Your task to perform on an android device: Go to privacy settings Image 0: 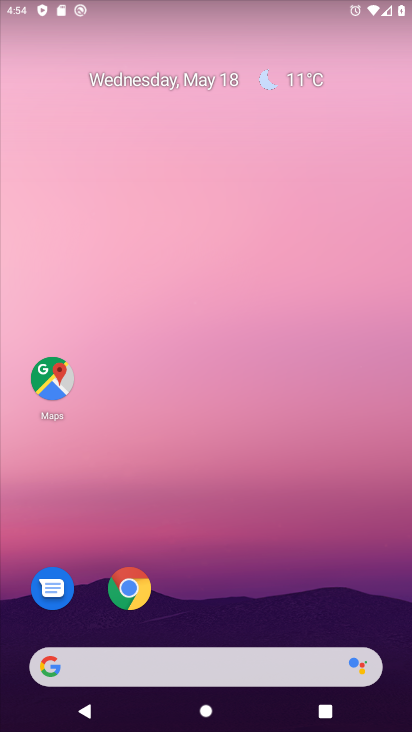
Step 0: drag from (266, 597) to (214, 114)
Your task to perform on an android device: Go to privacy settings Image 1: 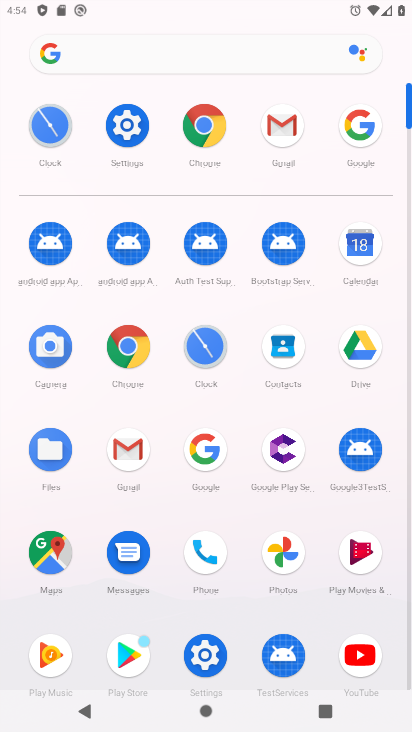
Step 1: click (139, 121)
Your task to perform on an android device: Go to privacy settings Image 2: 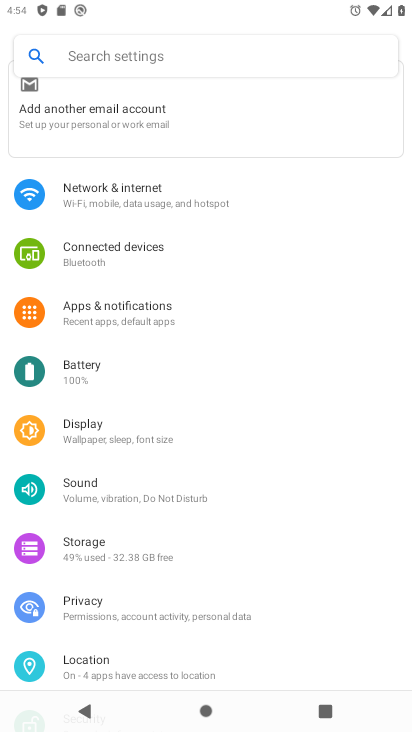
Step 2: click (132, 603)
Your task to perform on an android device: Go to privacy settings Image 3: 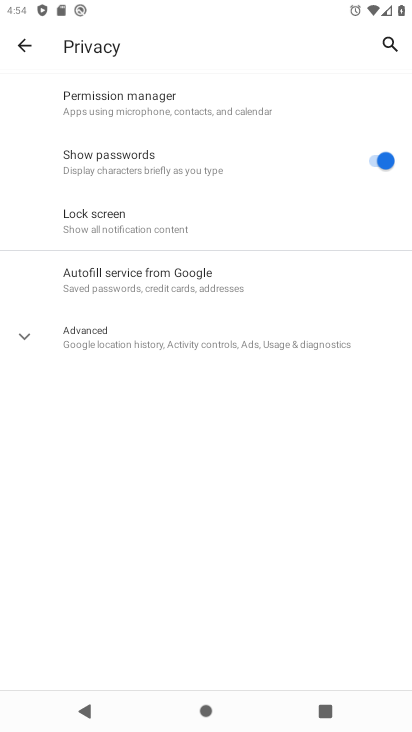
Step 3: task complete